Your task to perform on an android device: move an email to a new category in the gmail app Image 0: 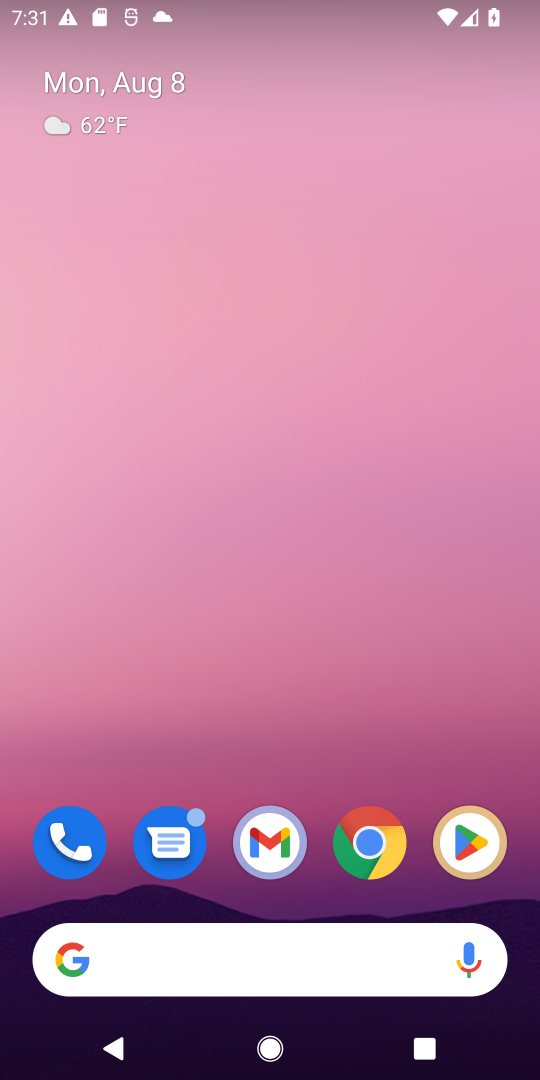
Step 0: click (281, 837)
Your task to perform on an android device: move an email to a new category in the gmail app Image 1: 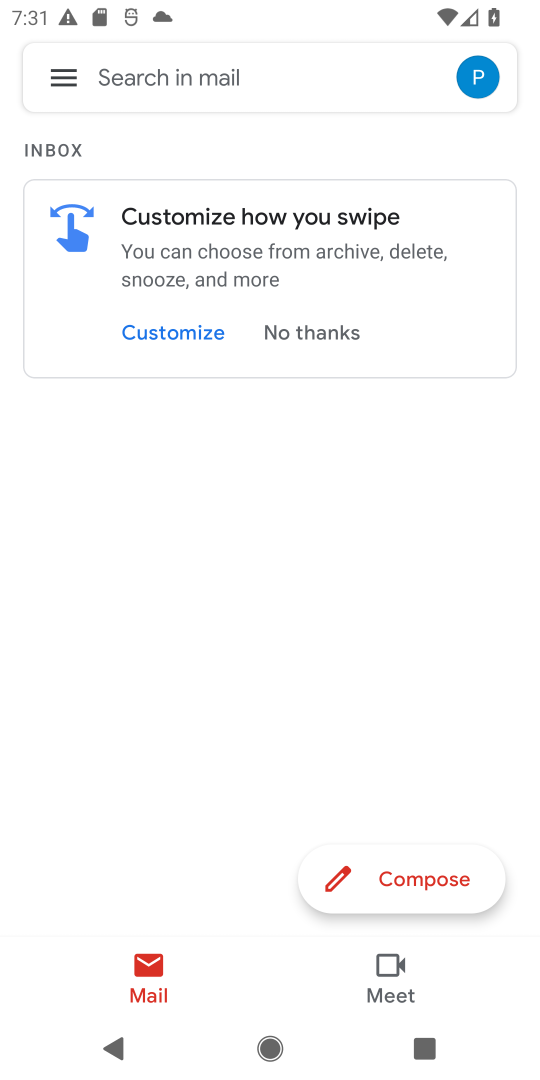
Step 1: click (66, 84)
Your task to perform on an android device: move an email to a new category in the gmail app Image 2: 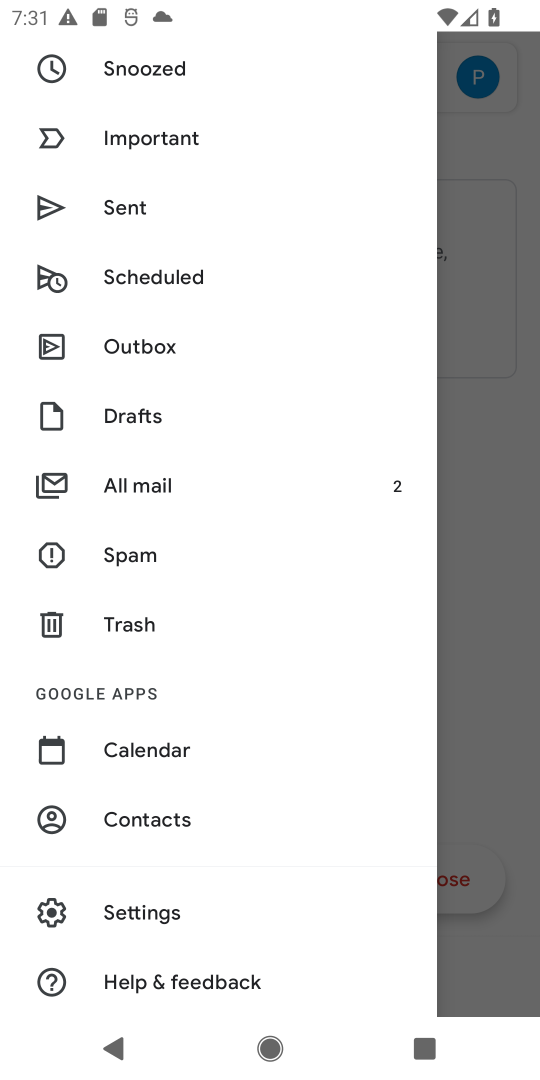
Step 2: click (207, 479)
Your task to perform on an android device: move an email to a new category in the gmail app Image 3: 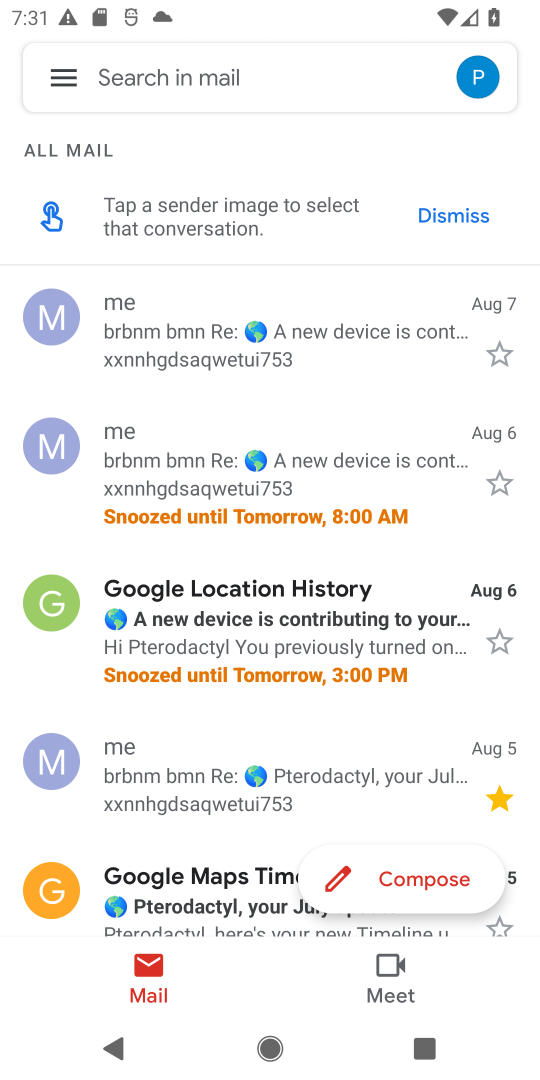
Step 3: click (255, 345)
Your task to perform on an android device: move an email to a new category in the gmail app Image 4: 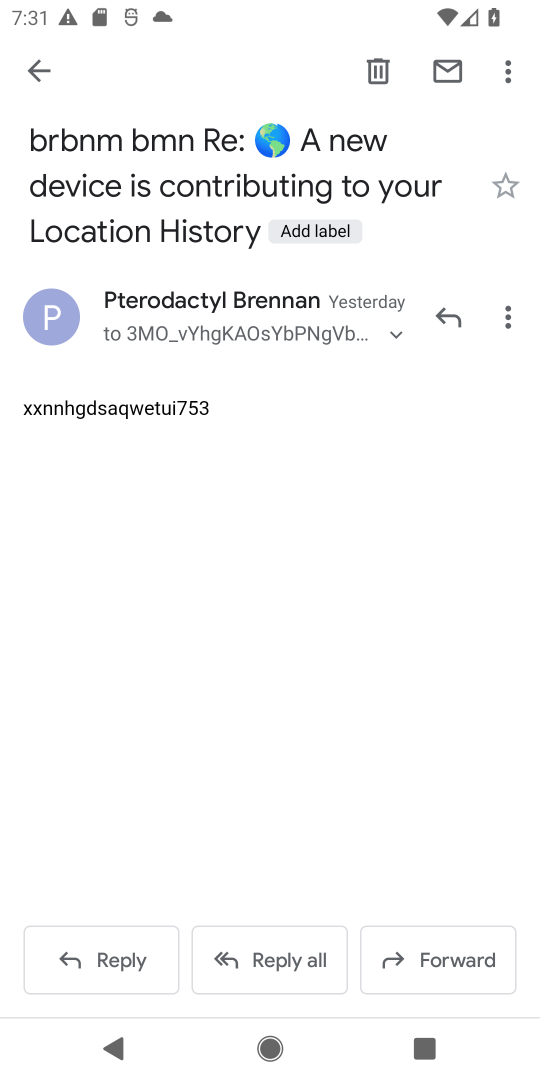
Step 4: click (508, 77)
Your task to perform on an android device: move an email to a new category in the gmail app Image 5: 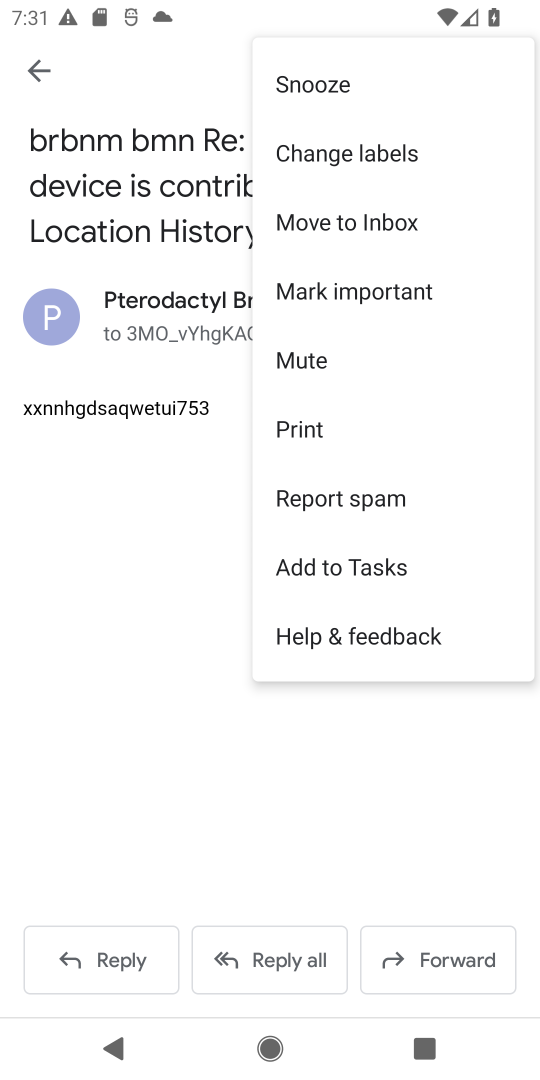
Step 5: click (404, 228)
Your task to perform on an android device: move an email to a new category in the gmail app Image 6: 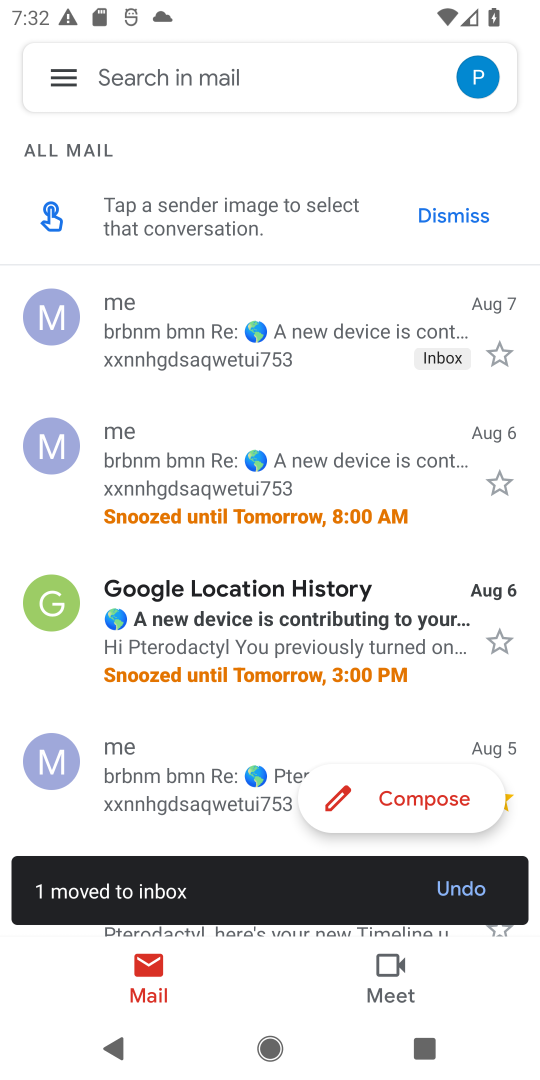
Step 6: task complete